Your task to perform on an android device: Open location settings Image 0: 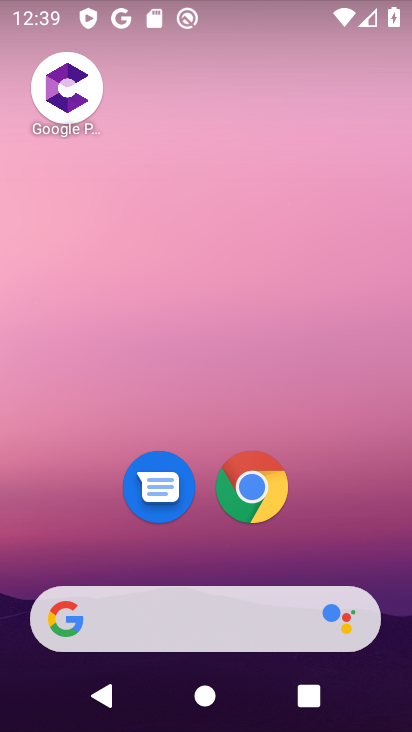
Step 0: drag from (194, 557) to (291, 0)
Your task to perform on an android device: Open location settings Image 1: 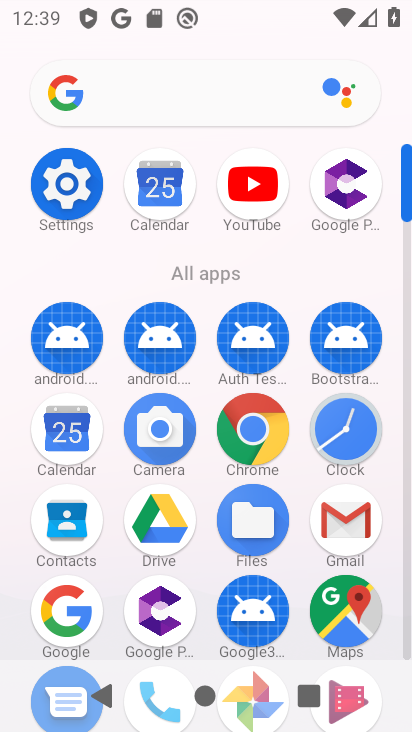
Step 1: click (68, 198)
Your task to perform on an android device: Open location settings Image 2: 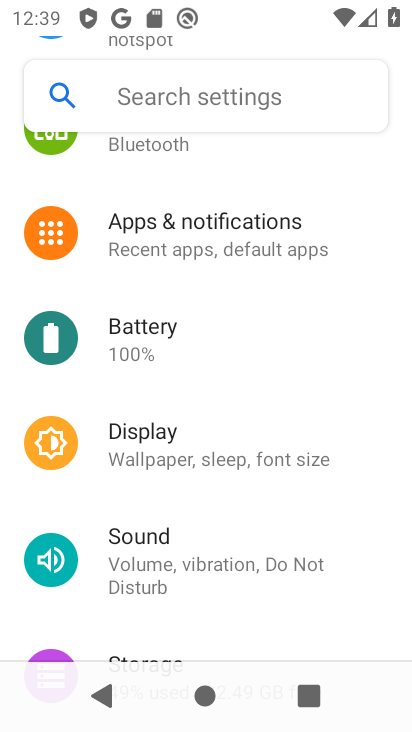
Step 2: drag from (184, 524) to (284, 62)
Your task to perform on an android device: Open location settings Image 3: 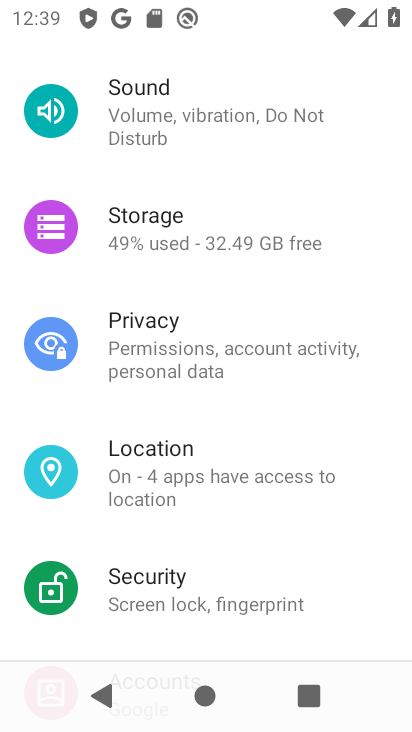
Step 3: click (191, 489)
Your task to perform on an android device: Open location settings Image 4: 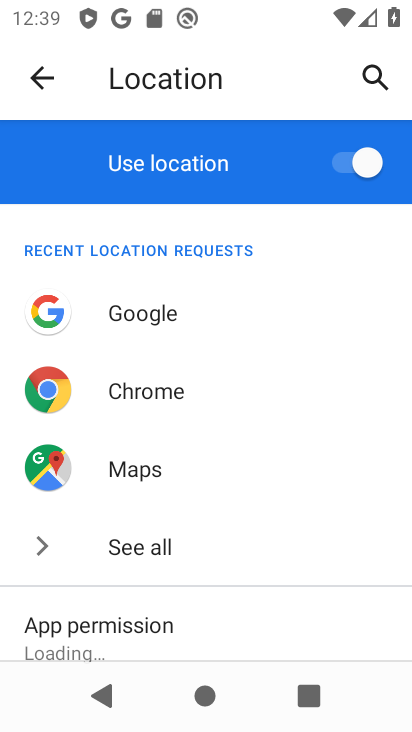
Step 4: task complete